Your task to perform on an android device: read, delete, or share a saved page in the chrome app Image 0: 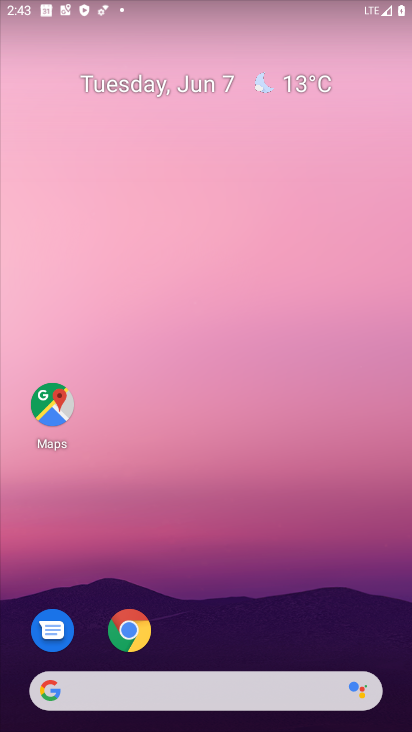
Step 0: click (122, 635)
Your task to perform on an android device: read, delete, or share a saved page in the chrome app Image 1: 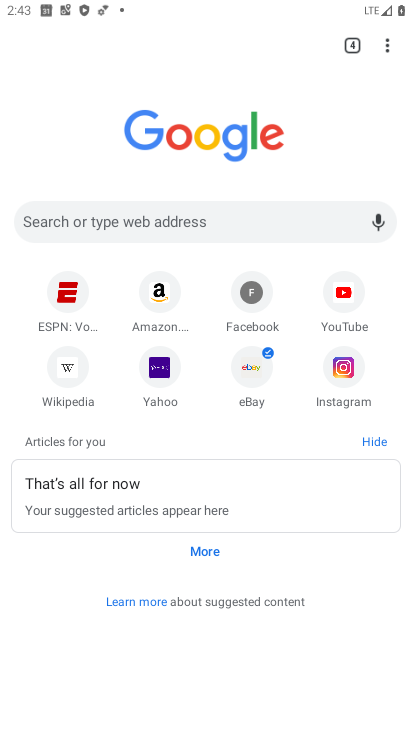
Step 1: click (387, 45)
Your task to perform on an android device: read, delete, or share a saved page in the chrome app Image 2: 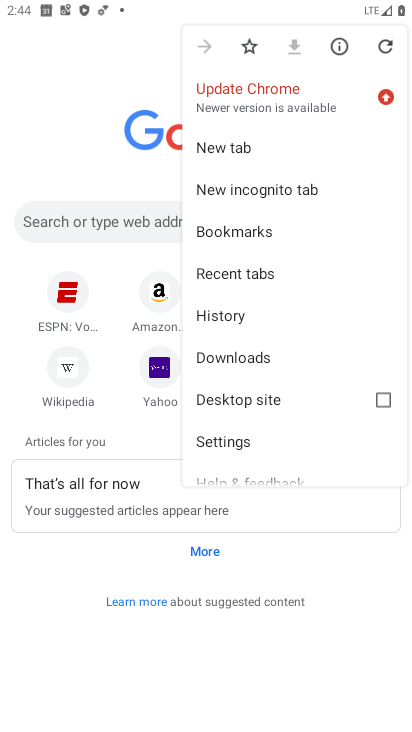
Step 2: click (233, 447)
Your task to perform on an android device: read, delete, or share a saved page in the chrome app Image 3: 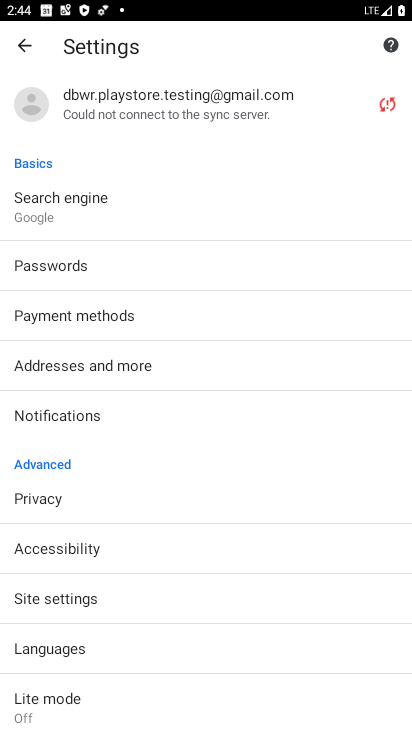
Step 3: click (40, 595)
Your task to perform on an android device: read, delete, or share a saved page in the chrome app Image 4: 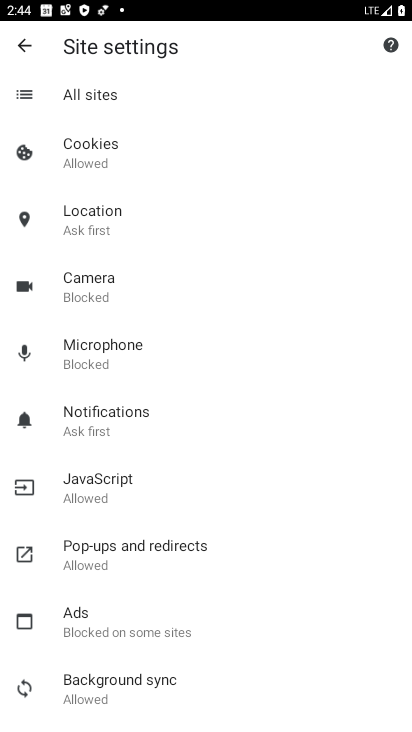
Step 4: drag from (287, 664) to (326, 307)
Your task to perform on an android device: read, delete, or share a saved page in the chrome app Image 5: 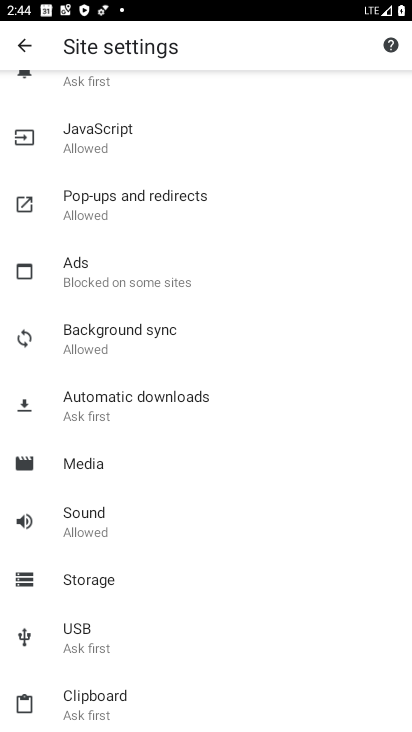
Step 5: drag from (210, 628) to (241, 317)
Your task to perform on an android device: read, delete, or share a saved page in the chrome app Image 6: 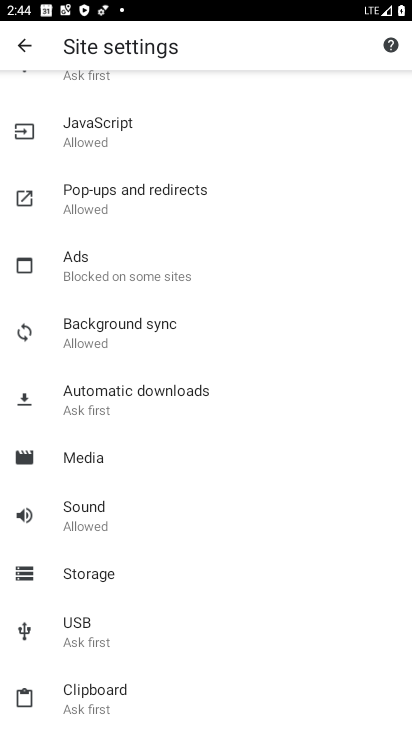
Step 6: click (23, 36)
Your task to perform on an android device: read, delete, or share a saved page in the chrome app Image 7: 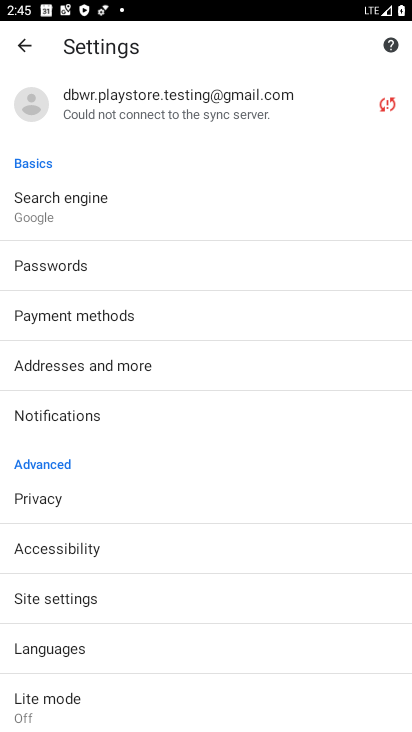
Step 7: drag from (246, 660) to (285, 285)
Your task to perform on an android device: read, delete, or share a saved page in the chrome app Image 8: 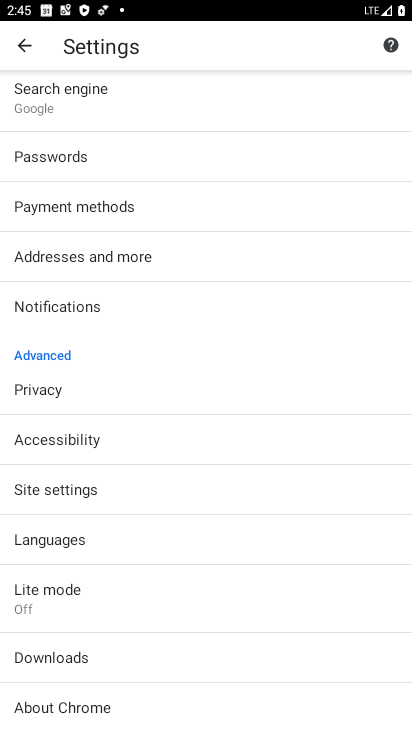
Step 8: click (52, 388)
Your task to perform on an android device: read, delete, or share a saved page in the chrome app Image 9: 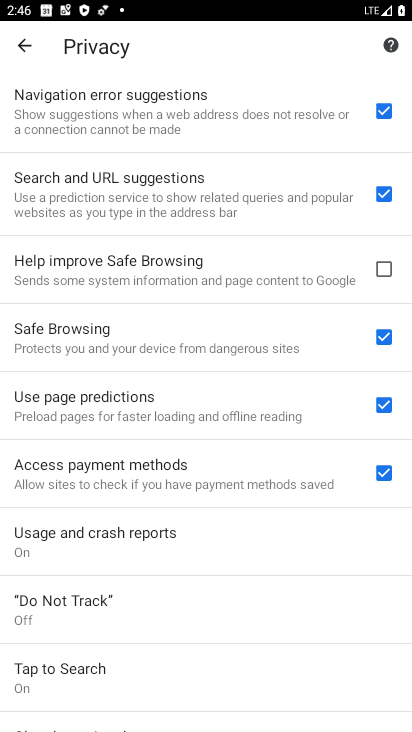
Step 9: task complete